Your task to perform on an android device: Clear all items from cart on target. Image 0: 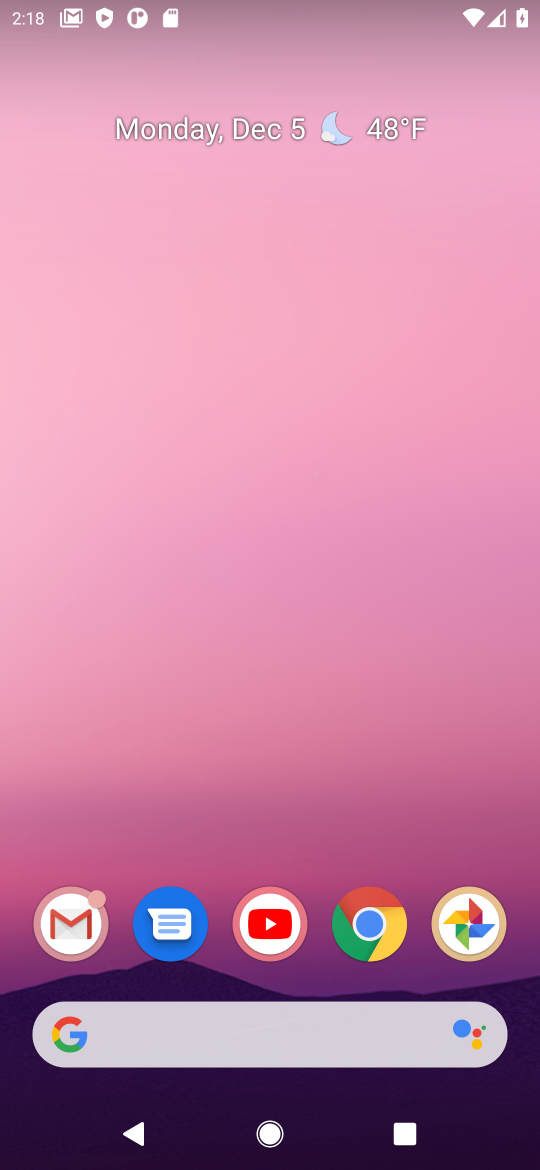
Step 0: click (213, 1014)
Your task to perform on an android device: Clear all items from cart on target. Image 1: 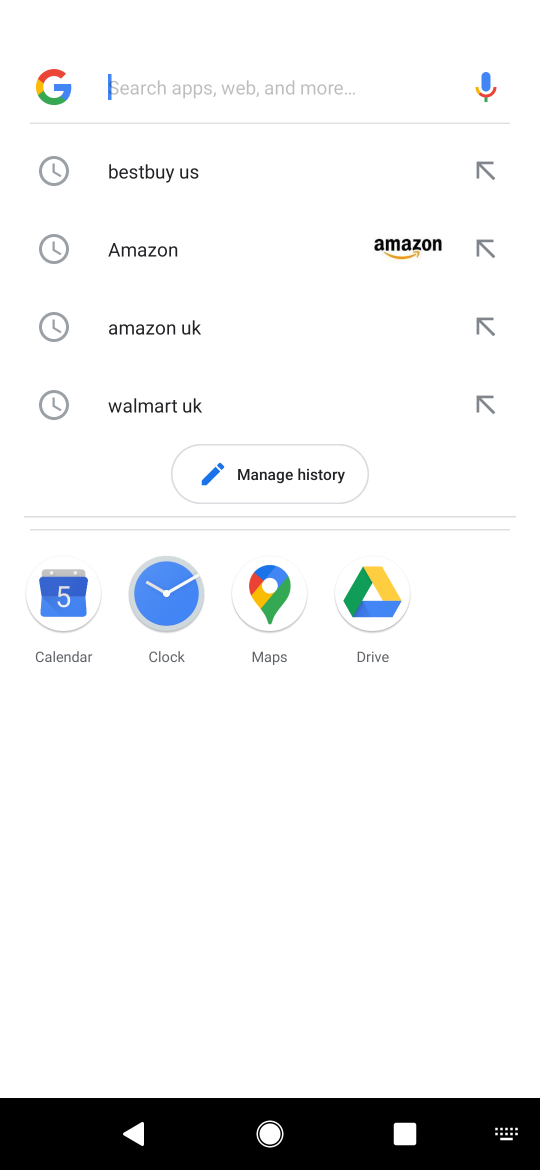
Step 1: type "target"
Your task to perform on an android device: Clear all items from cart on target. Image 2: 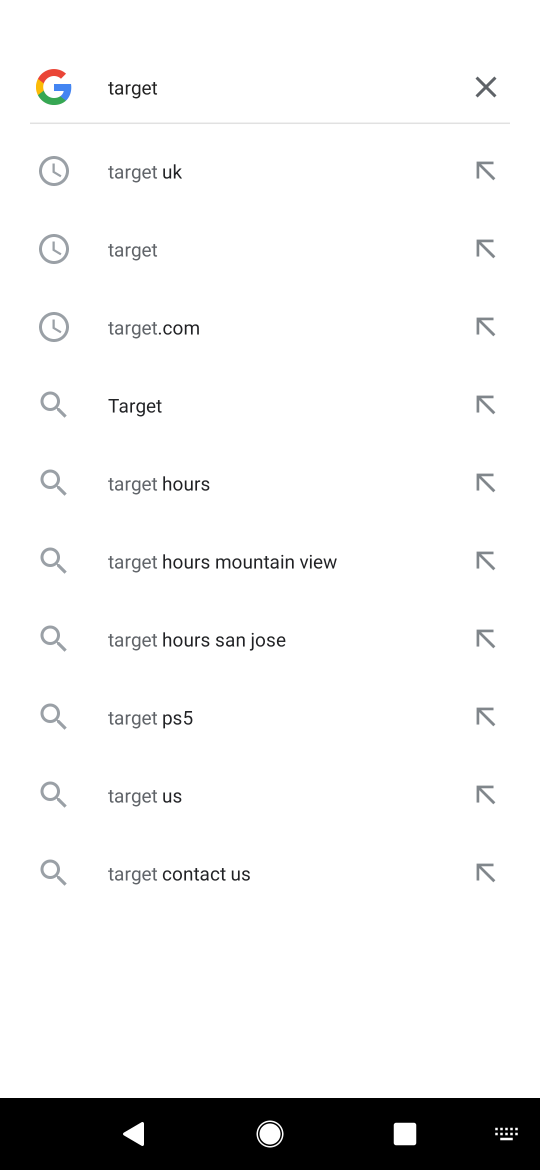
Step 2: click (169, 247)
Your task to perform on an android device: Clear all items from cart on target. Image 3: 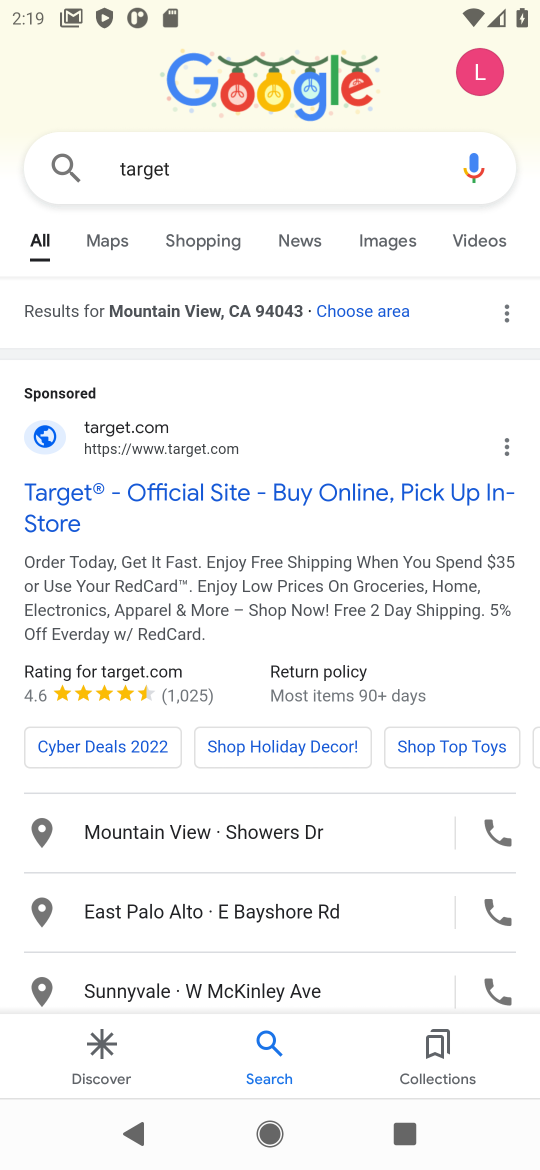
Step 3: click (122, 522)
Your task to perform on an android device: Clear all items from cart on target. Image 4: 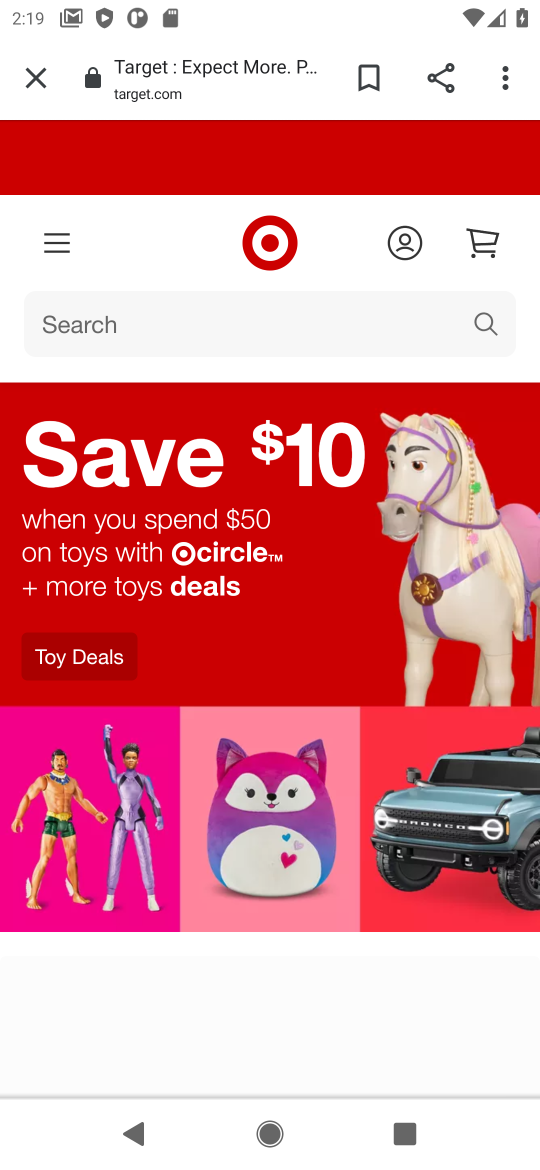
Step 4: click (184, 329)
Your task to perform on an android device: Clear all items from cart on target. Image 5: 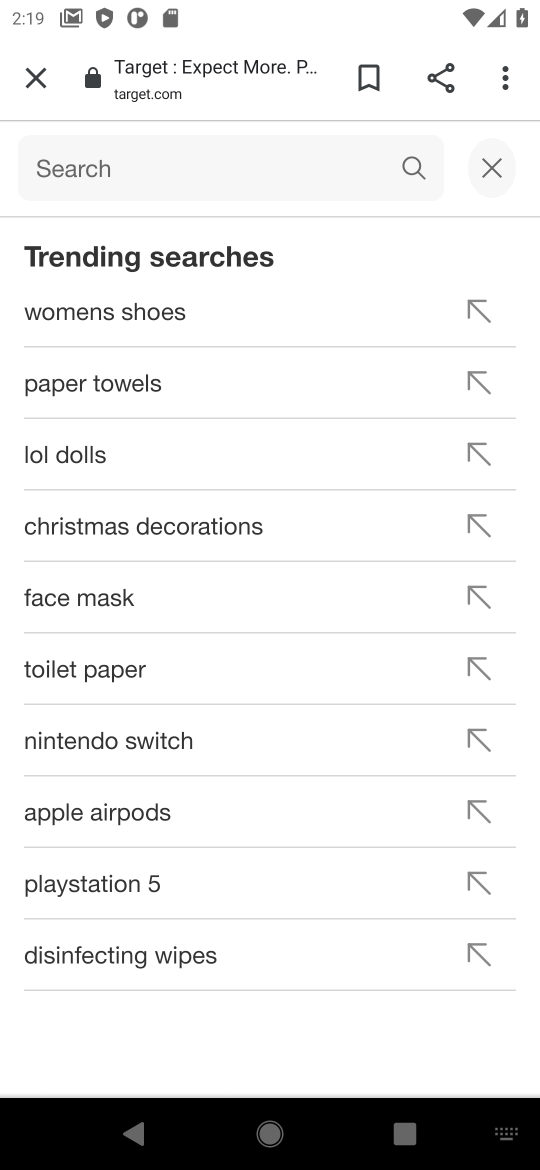
Step 5: press home button
Your task to perform on an android device: Clear all items from cart on target. Image 6: 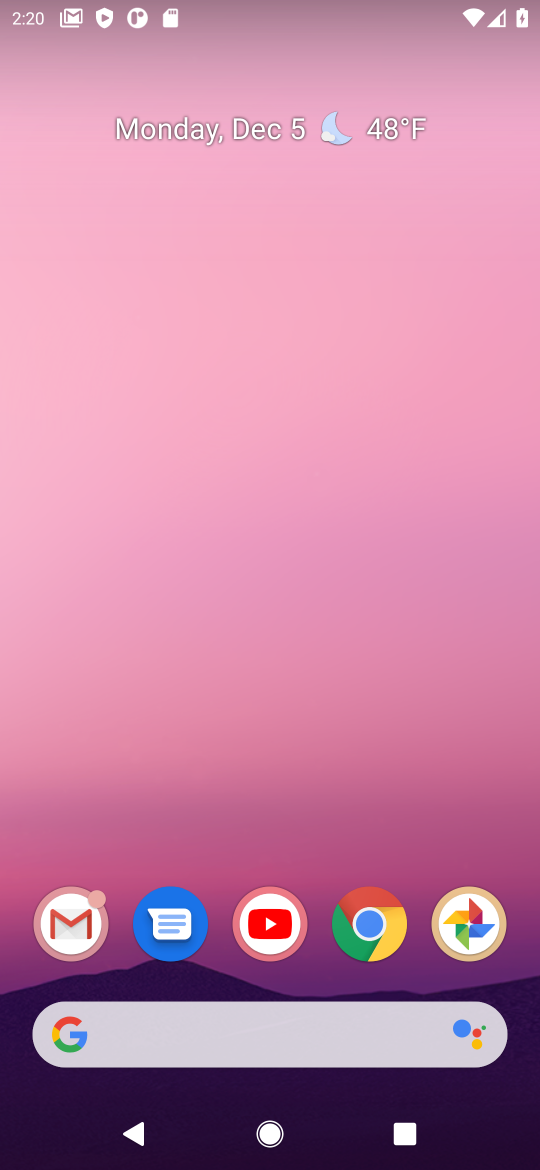
Step 6: click (260, 1053)
Your task to perform on an android device: Clear all items from cart on target. Image 7: 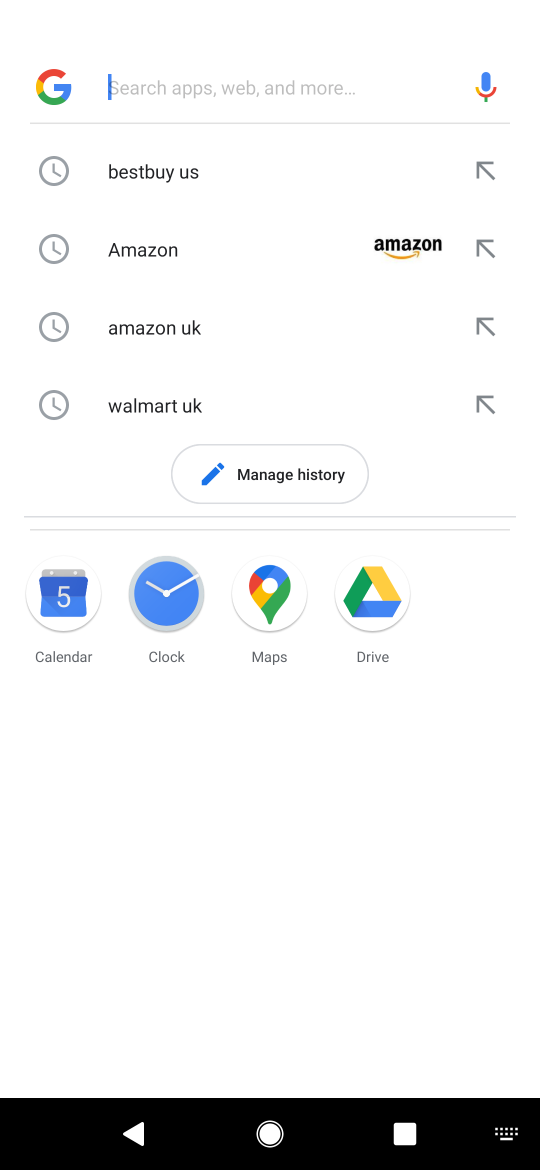
Step 7: type "target"
Your task to perform on an android device: Clear all items from cart on target. Image 8: 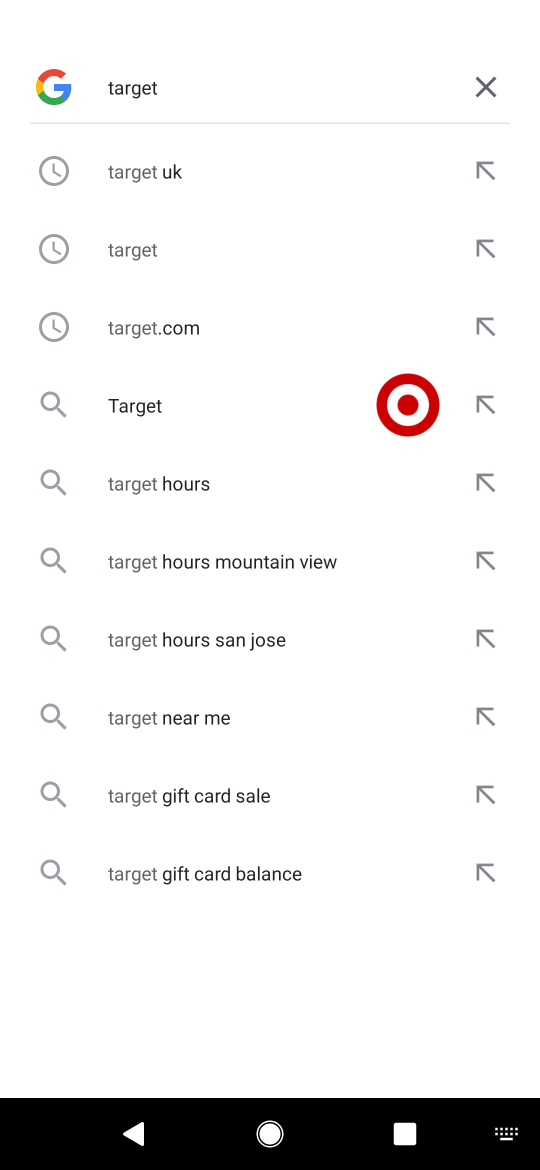
Step 8: click (147, 260)
Your task to perform on an android device: Clear all items from cart on target. Image 9: 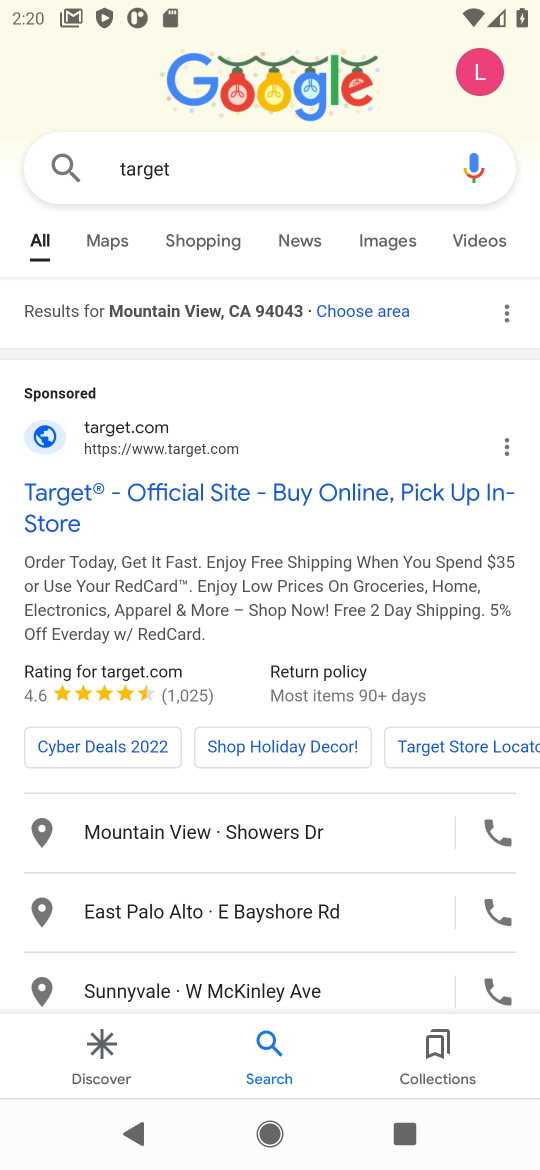
Step 9: click (76, 519)
Your task to perform on an android device: Clear all items from cart on target. Image 10: 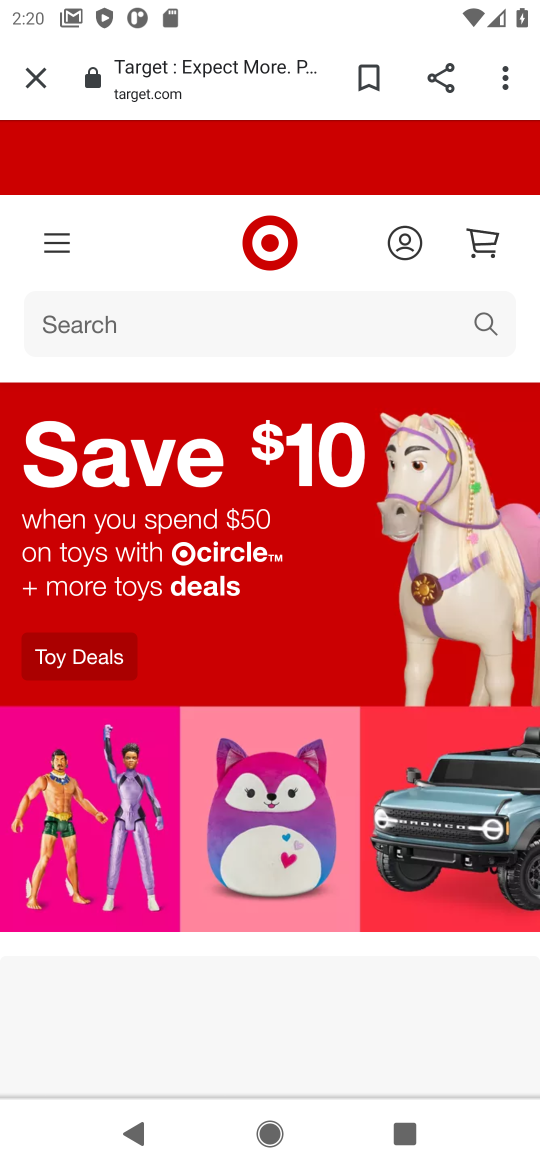
Step 10: click (469, 256)
Your task to perform on an android device: Clear all items from cart on target. Image 11: 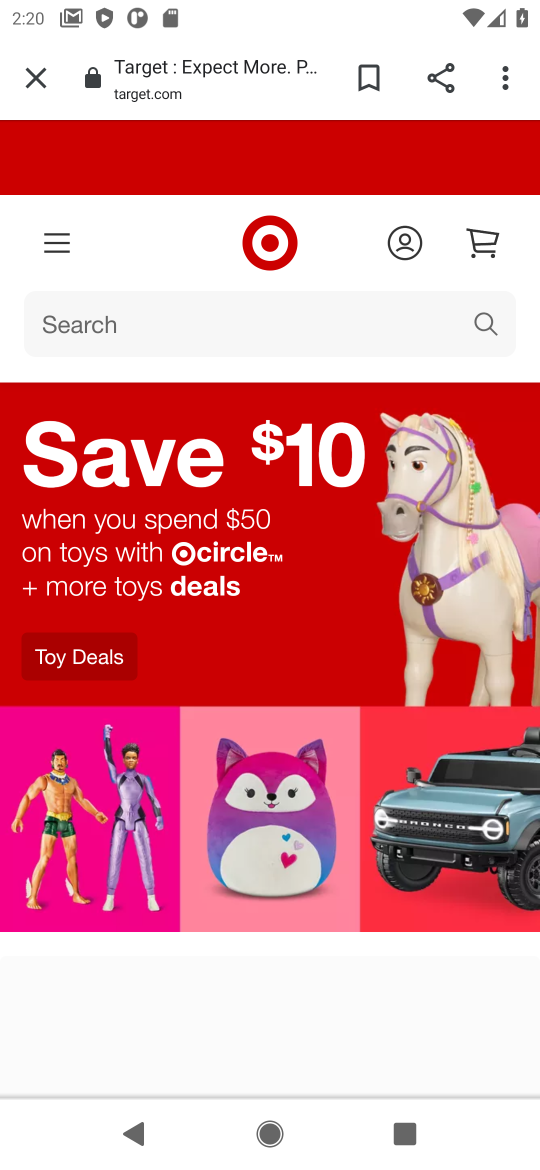
Step 11: task complete